Your task to perform on an android device: Google the capital of Panama Image 0: 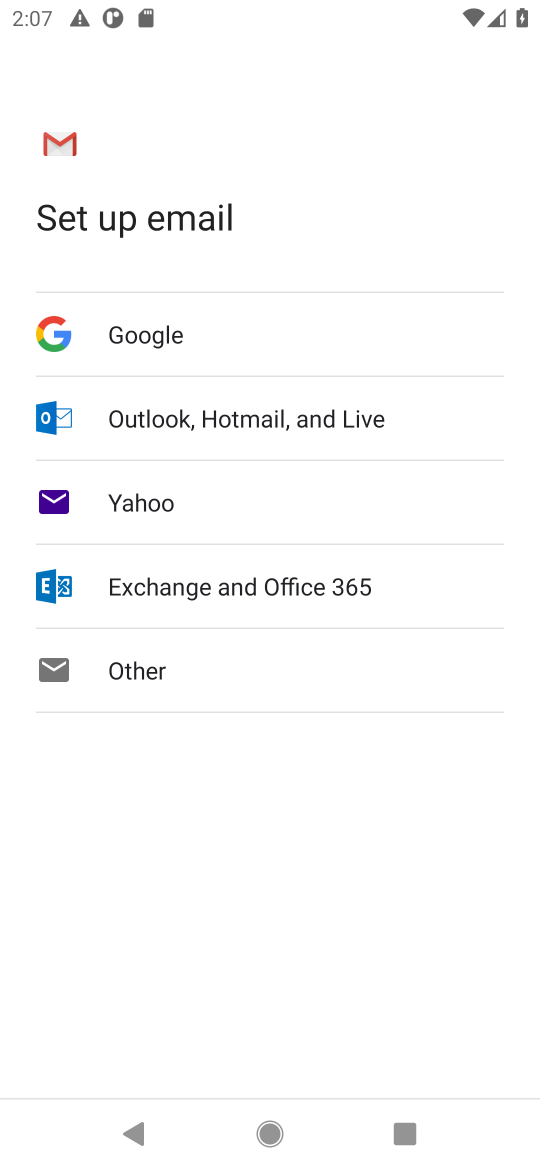
Step 0: press home button
Your task to perform on an android device: Google the capital of Panama Image 1: 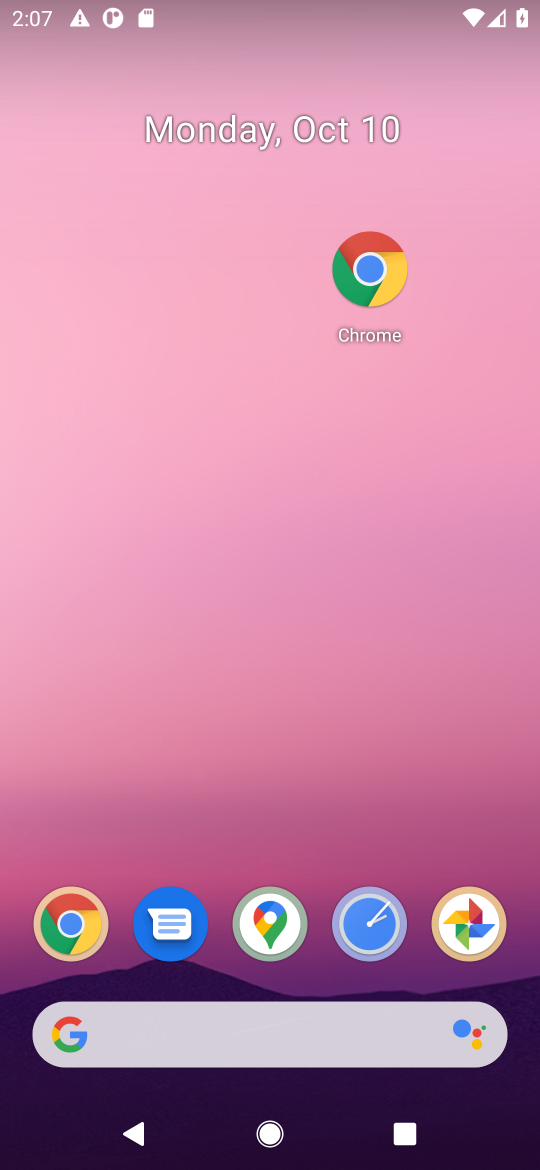
Step 1: drag from (306, 965) to (410, 8)
Your task to perform on an android device: Google the capital of Panama Image 2: 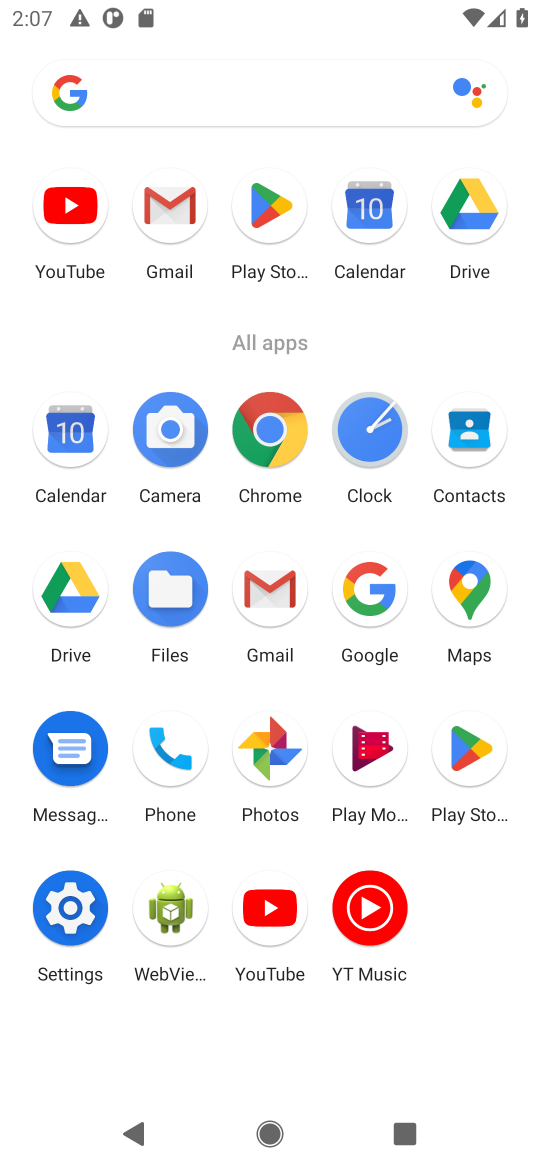
Step 2: click (271, 436)
Your task to perform on an android device: Google the capital of Panama Image 3: 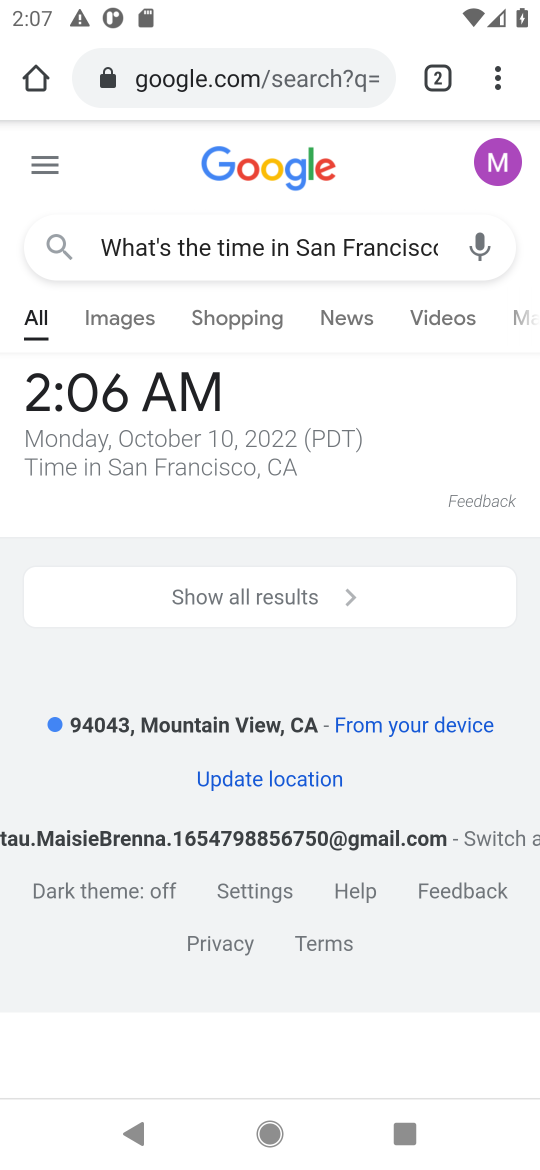
Step 3: click (227, 69)
Your task to perform on an android device: Google the capital of Panama Image 4: 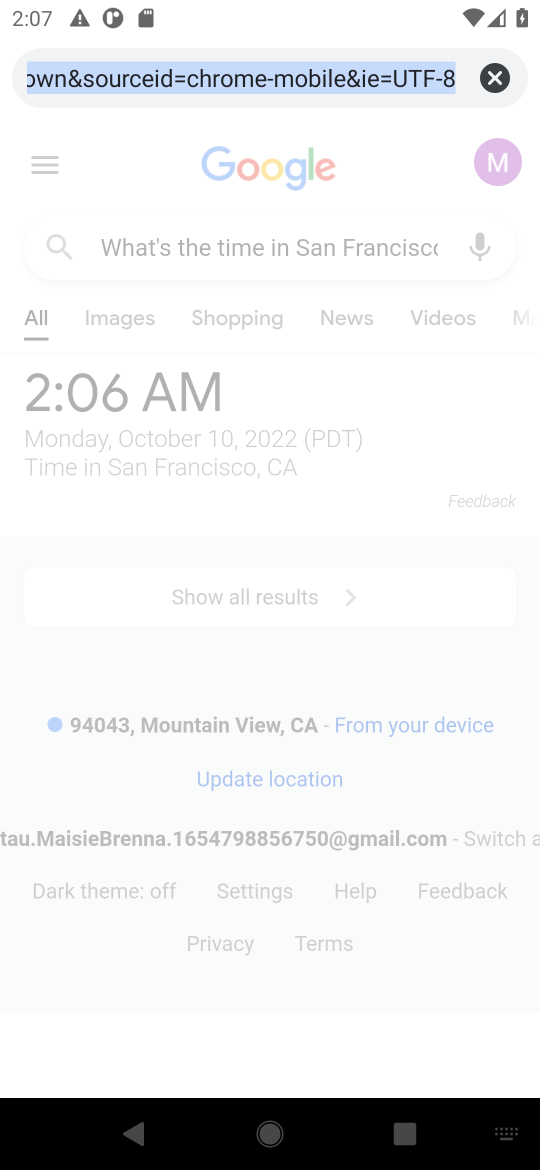
Step 4: click (499, 78)
Your task to perform on an android device: Google the capital of Panama Image 5: 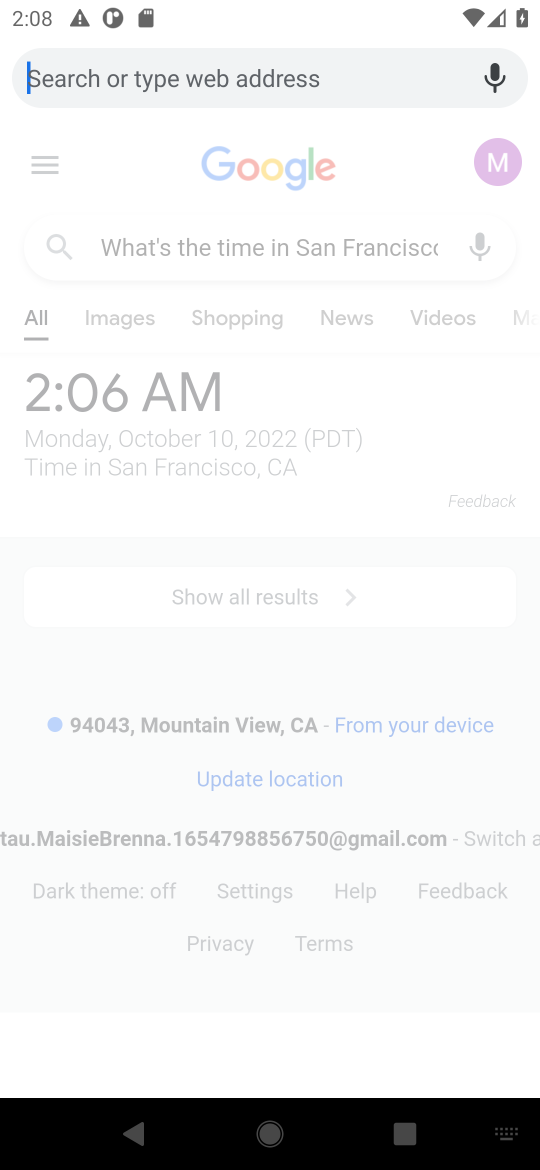
Step 5: type "Google the capital of Panama"
Your task to perform on an android device: Google the capital of Panama Image 6: 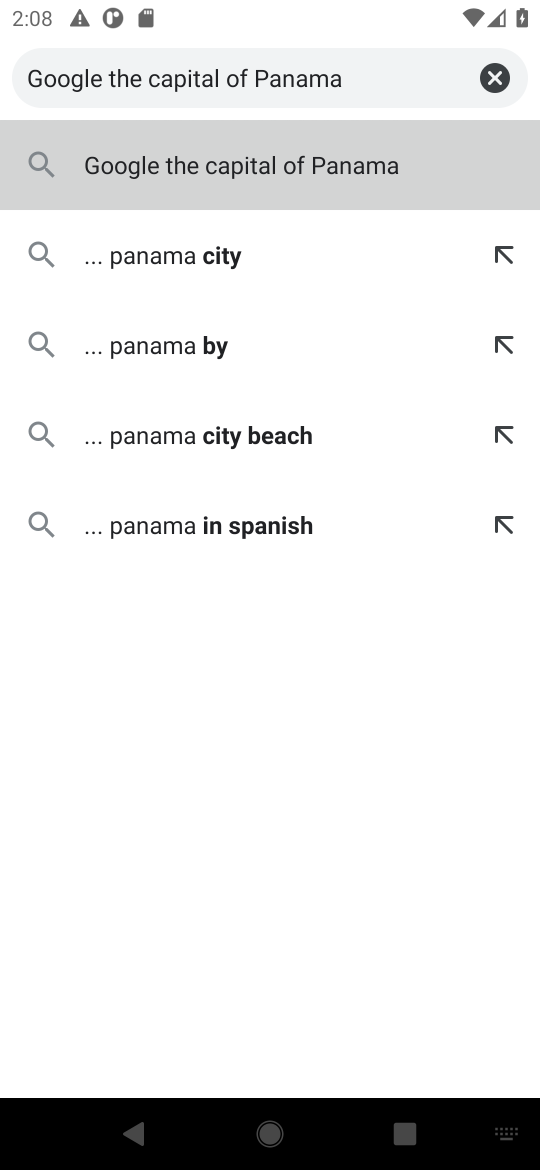
Step 6: click (116, 162)
Your task to perform on an android device: Google the capital of Panama Image 7: 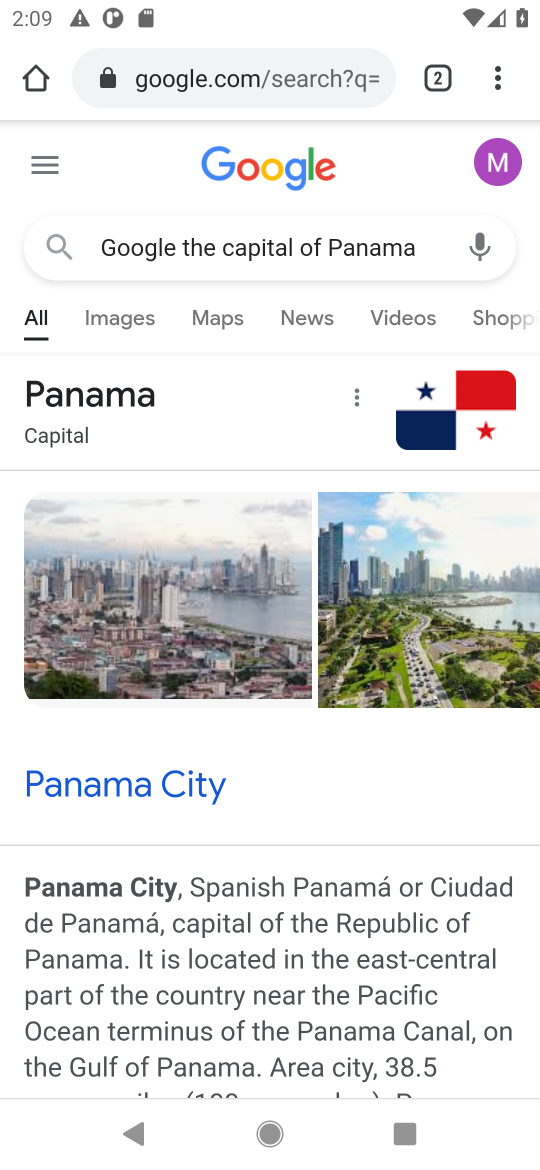
Step 7: task complete